Your task to perform on an android device: Open location settings Image 0: 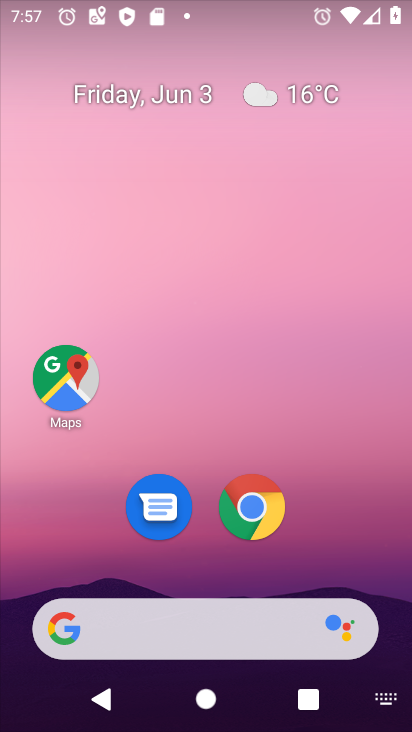
Step 0: drag from (321, 518) to (234, 19)
Your task to perform on an android device: Open location settings Image 1: 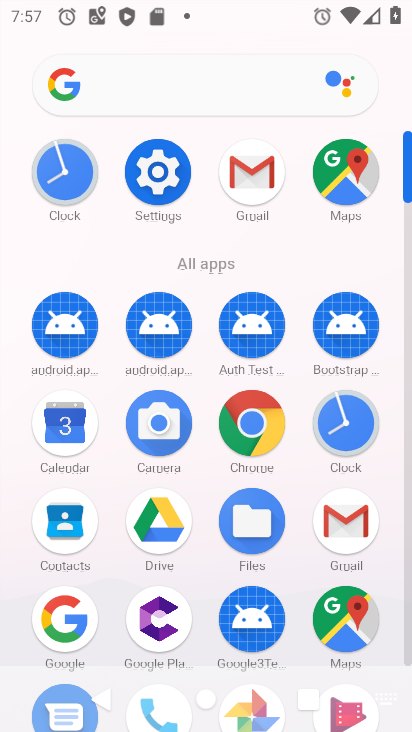
Step 1: click (167, 182)
Your task to perform on an android device: Open location settings Image 2: 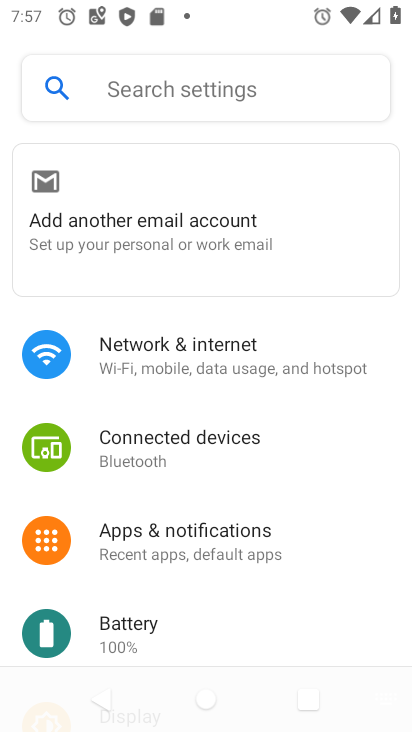
Step 2: drag from (277, 606) to (187, 13)
Your task to perform on an android device: Open location settings Image 3: 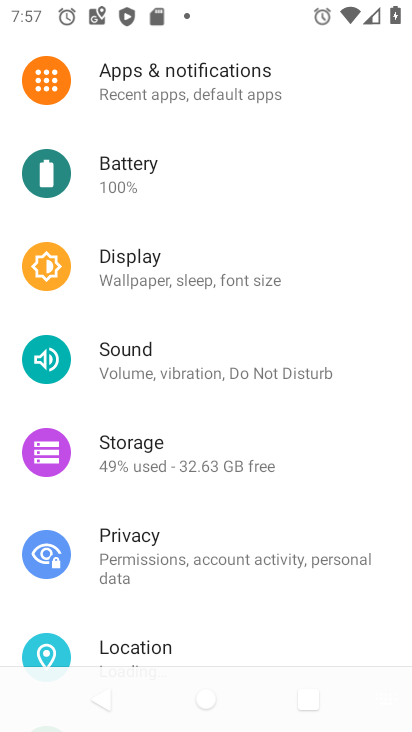
Step 3: click (239, 662)
Your task to perform on an android device: Open location settings Image 4: 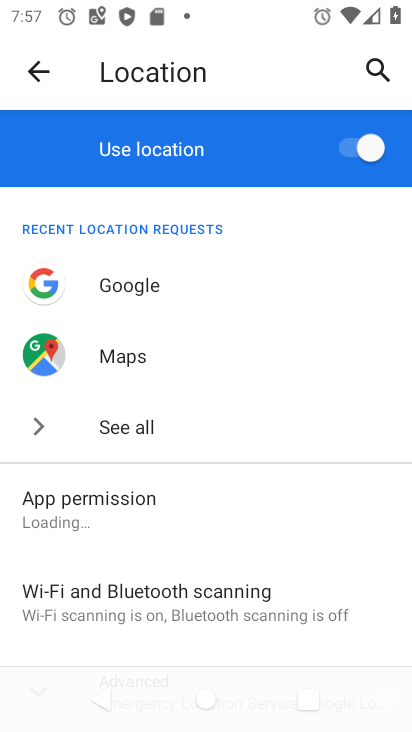
Step 4: task complete